Your task to perform on an android device: Play the latest video from the Washington Post Image 0: 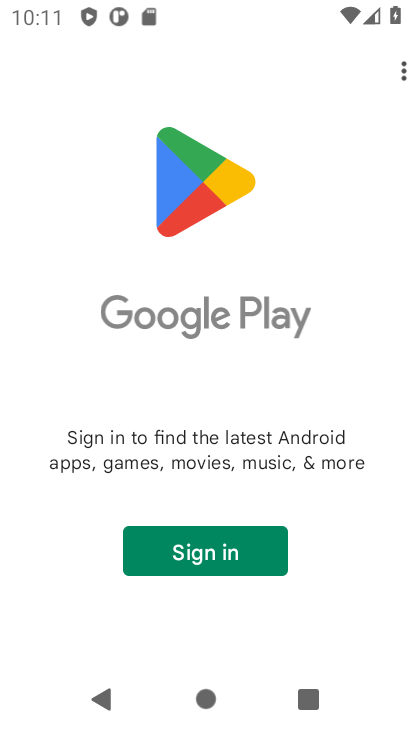
Step 0: press home button
Your task to perform on an android device: Play the latest video from the Washington Post Image 1: 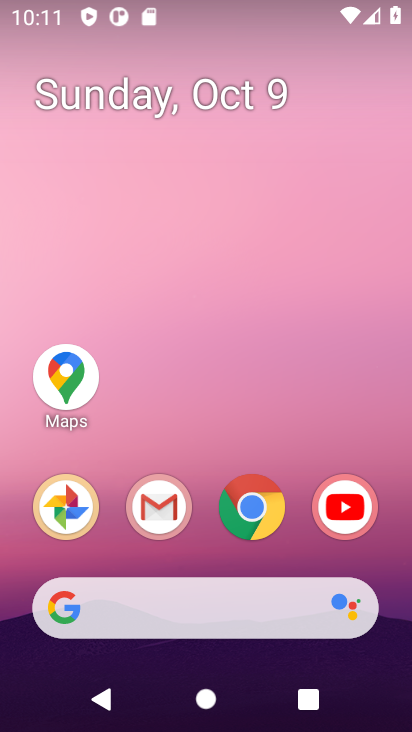
Step 1: drag from (212, 573) to (288, 117)
Your task to perform on an android device: Play the latest video from the Washington Post Image 2: 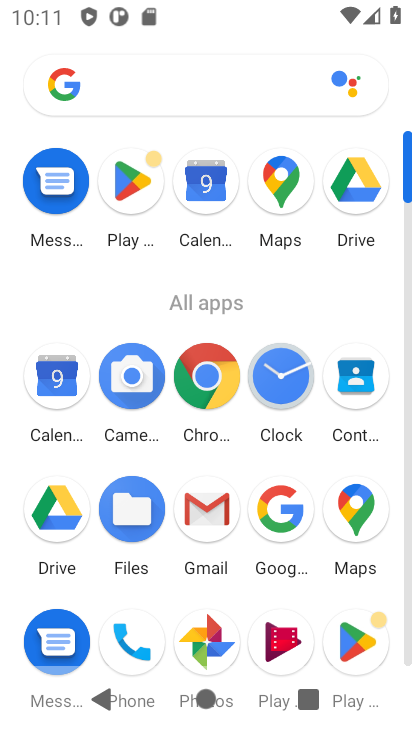
Step 2: drag from (231, 585) to (254, 194)
Your task to perform on an android device: Play the latest video from the Washington Post Image 3: 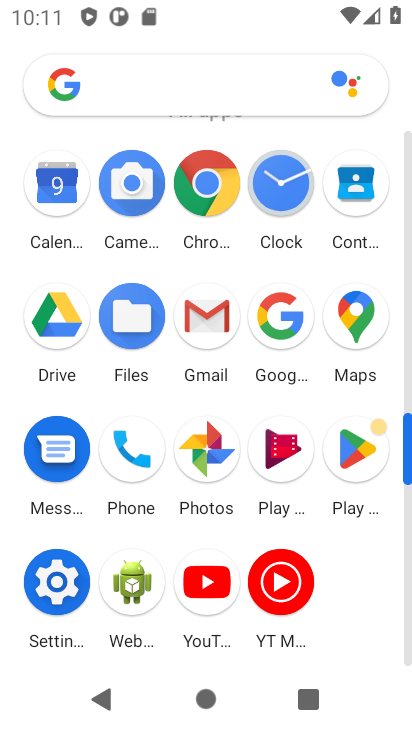
Step 3: click (195, 591)
Your task to perform on an android device: Play the latest video from the Washington Post Image 4: 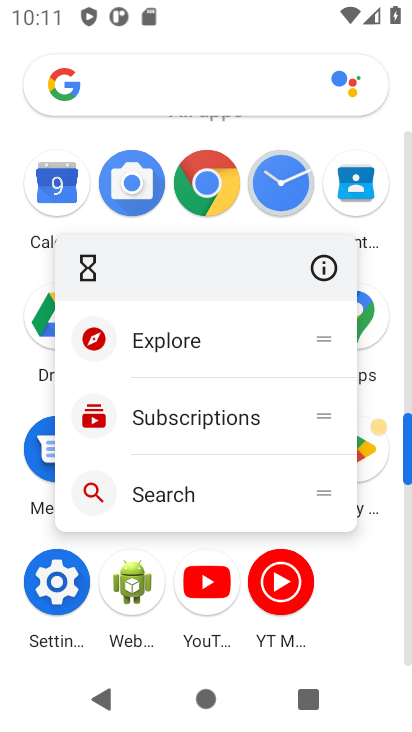
Step 4: click (195, 591)
Your task to perform on an android device: Play the latest video from the Washington Post Image 5: 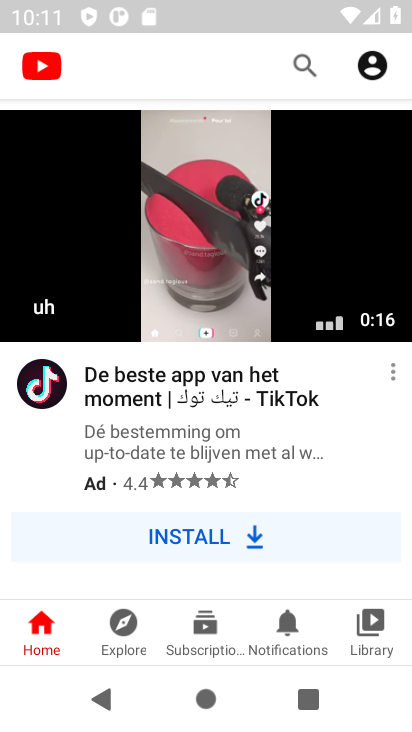
Step 5: click (303, 58)
Your task to perform on an android device: Play the latest video from the Washington Post Image 6: 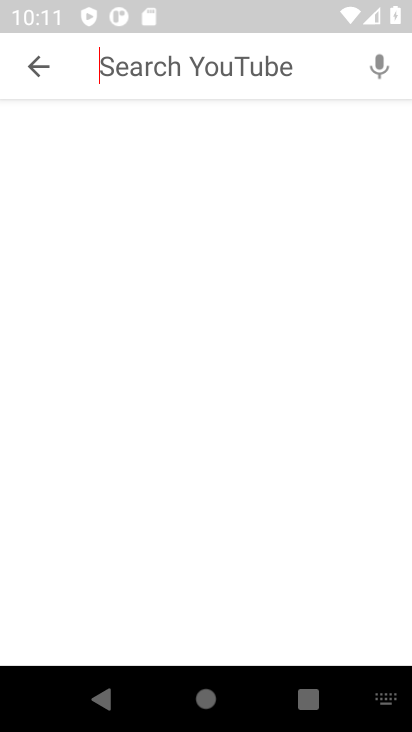
Step 6: type "Washington post"
Your task to perform on an android device: Play the latest video from the Washington Post Image 7: 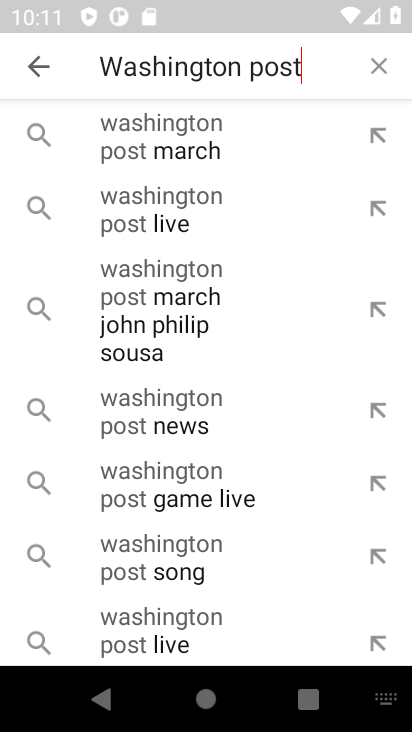
Step 7: press enter
Your task to perform on an android device: Play the latest video from the Washington Post Image 8: 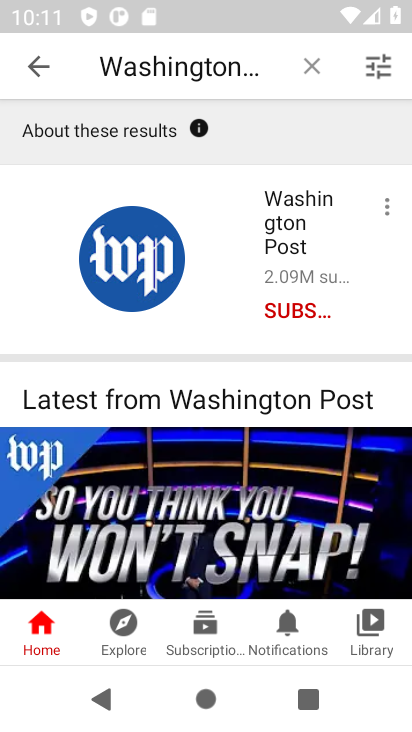
Step 8: click (281, 210)
Your task to perform on an android device: Play the latest video from the Washington Post Image 9: 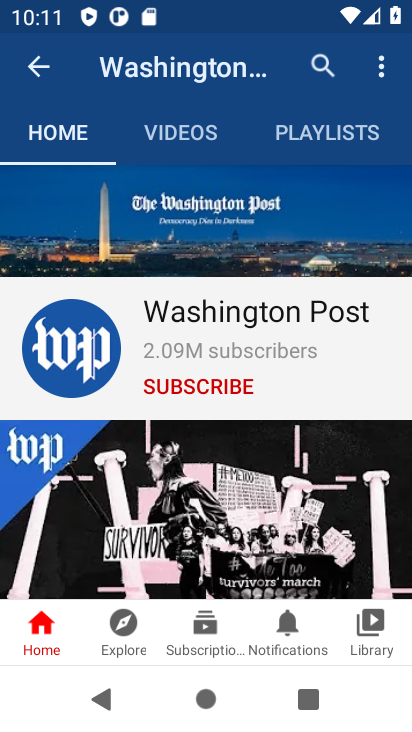
Step 9: click (184, 139)
Your task to perform on an android device: Play the latest video from the Washington Post Image 10: 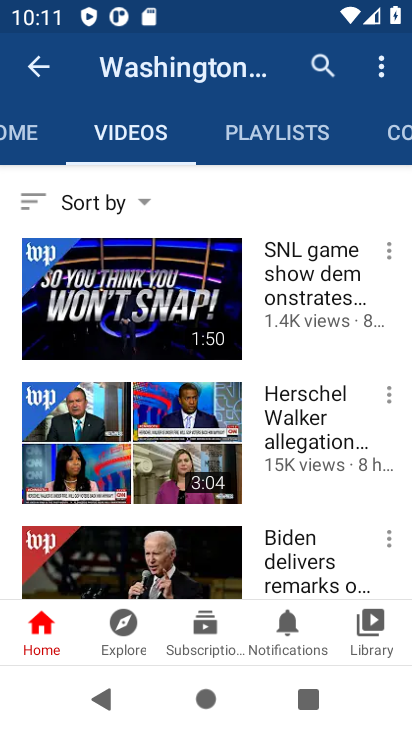
Step 10: click (129, 288)
Your task to perform on an android device: Play the latest video from the Washington Post Image 11: 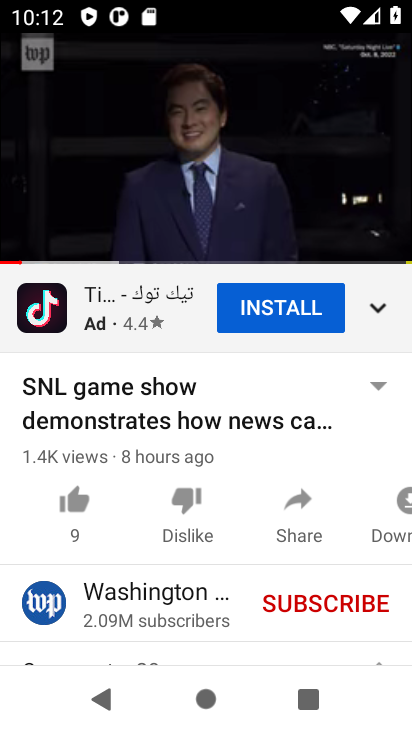
Step 11: task complete